Your task to perform on an android device: check the backup settings in the google photos Image 0: 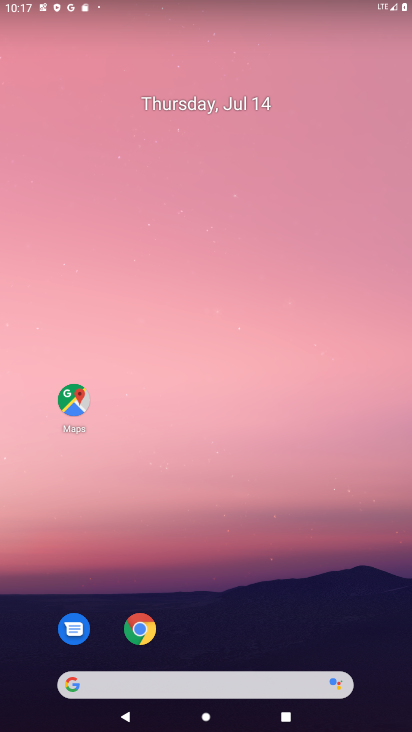
Step 0: press home button
Your task to perform on an android device: check the backup settings in the google photos Image 1: 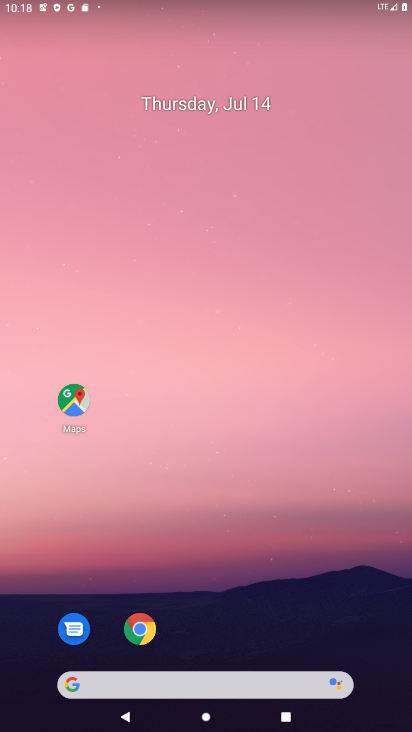
Step 1: drag from (50, 544) to (275, 78)
Your task to perform on an android device: check the backup settings in the google photos Image 2: 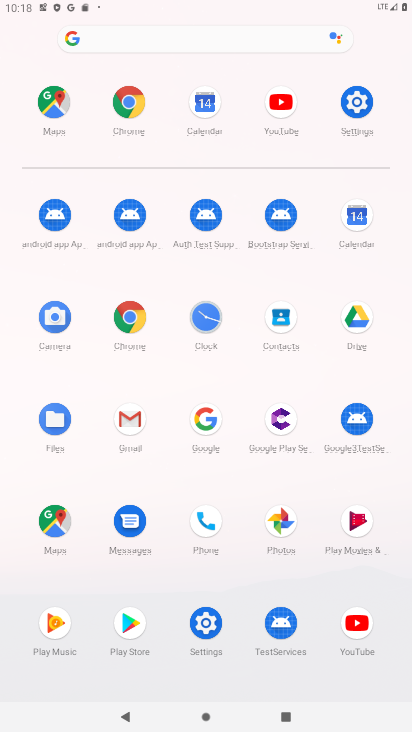
Step 2: click (293, 521)
Your task to perform on an android device: check the backup settings in the google photos Image 3: 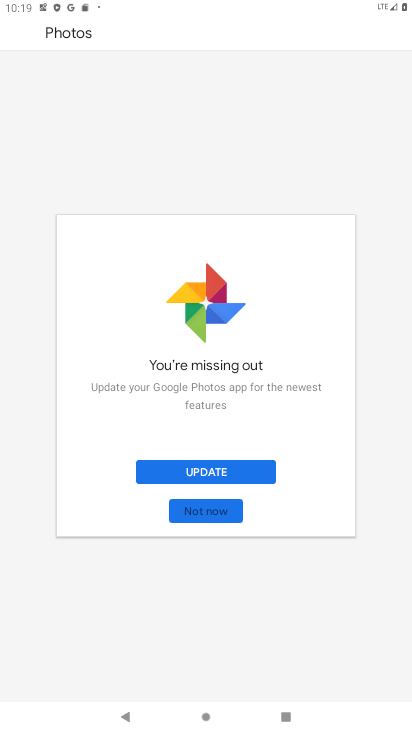
Step 3: click (203, 524)
Your task to perform on an android device: check the backup settings in the google photos Image 4: 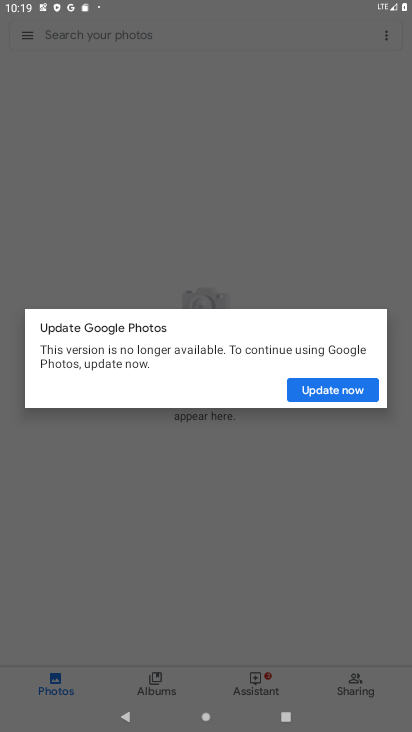
Step 4: click (332, 395)
Your task to perform on an android device: check the backup settings in the google photos Image 5: 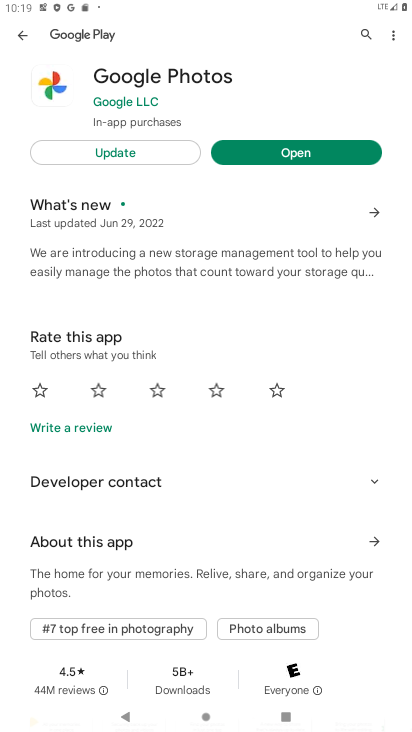
Step 5: press back button
Your task to perform on an android device: check the backup settings in the google photos Image 6: 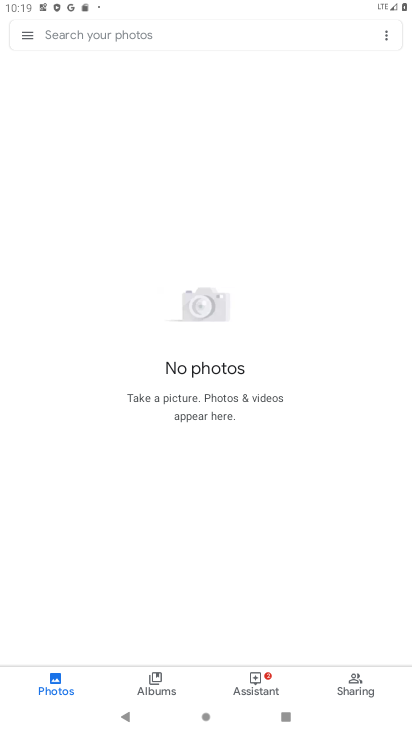
Step 6: click (30, 30)
Your task to perform on an android device: check the backup settings in the google photos Image 7: 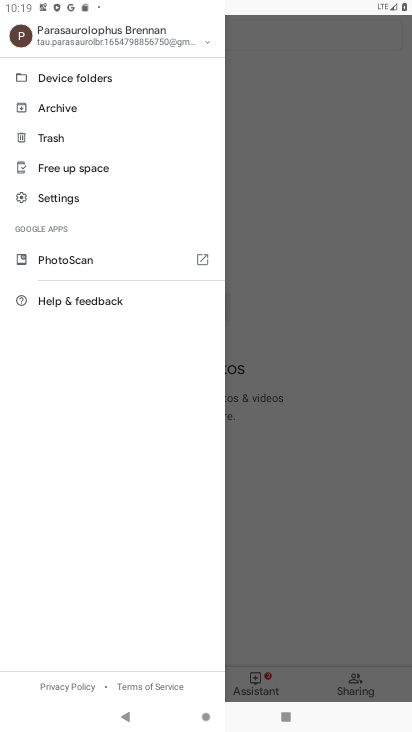
Step 7: click (79, 200)
Your task to perform on an android device: check the backup settings in the google photos Image 8: 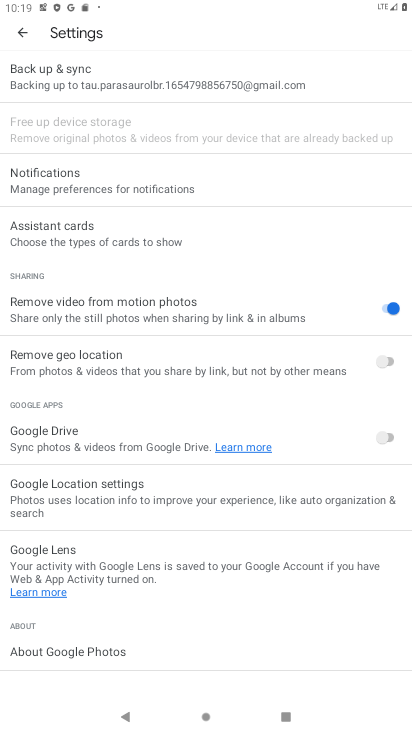
Step 8: click (89, 71)
Your task to perform on an android device: check the backup settings in the google photos Image 9: 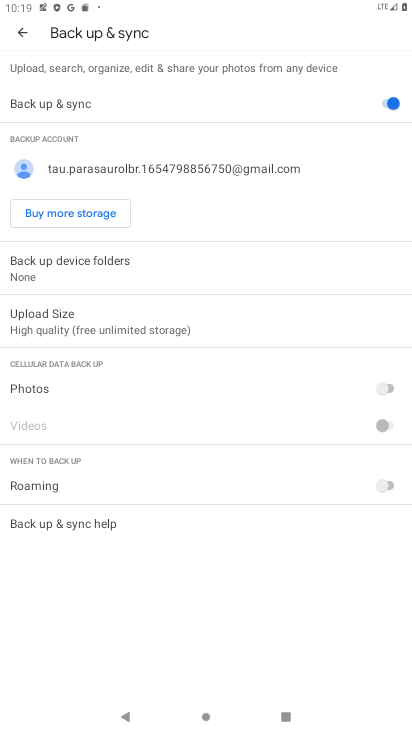
Step 9: task complete